Your task to perform on an android device: Do I have any events today? Image 0: 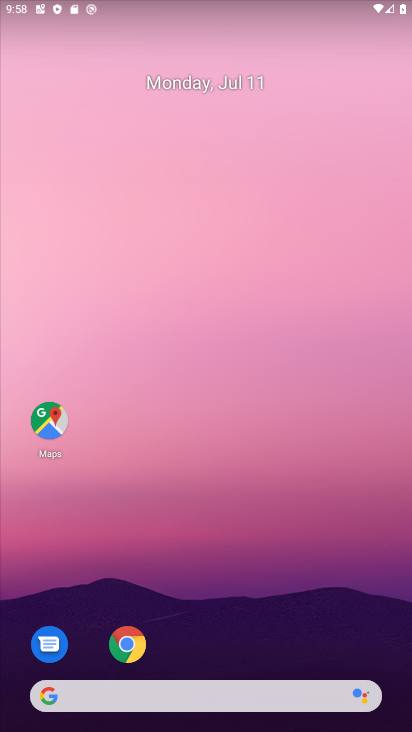
Step 0: press home button
Your task to perform on an android device: Do I have any events today? Image 1: 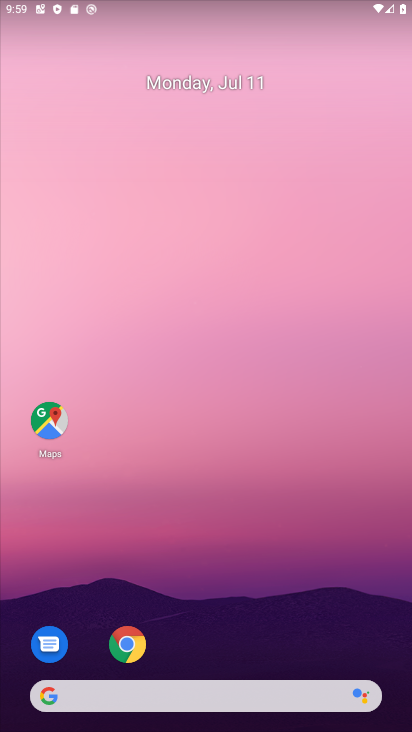
Step 1: drag from (210, 642) to (227, 133)
Your task to perform on an android device: Do I have any events today? Image 2: 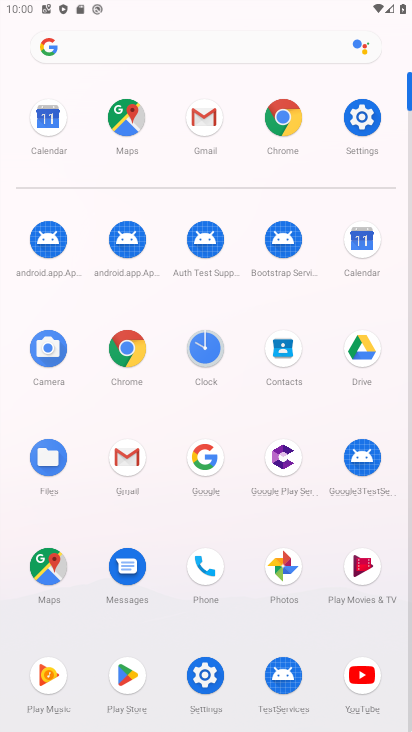
Step 2: click (358, 244)
Your task to perform on an android device: Do I have any events today? Image 3: 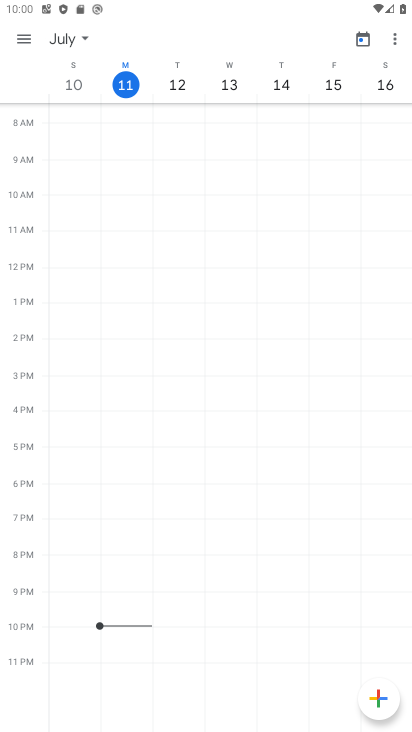
Step 3: click (24, 32)
Your task to perform on an android device: Do I have any events today? Image 4: 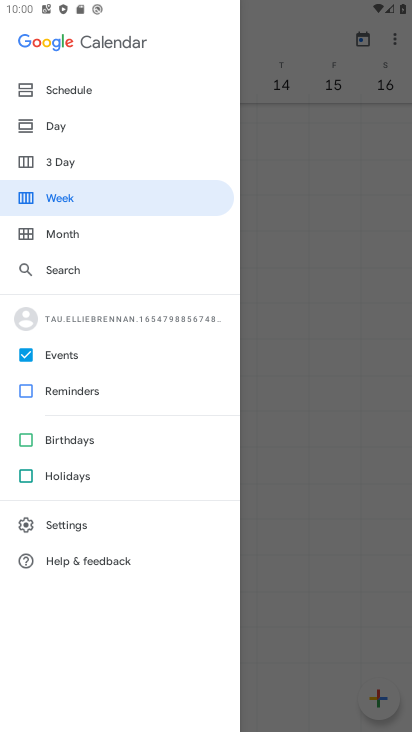
Step 4: click (62, 116)
Your task to perform on an android device: Do I have any events today? Image 5: 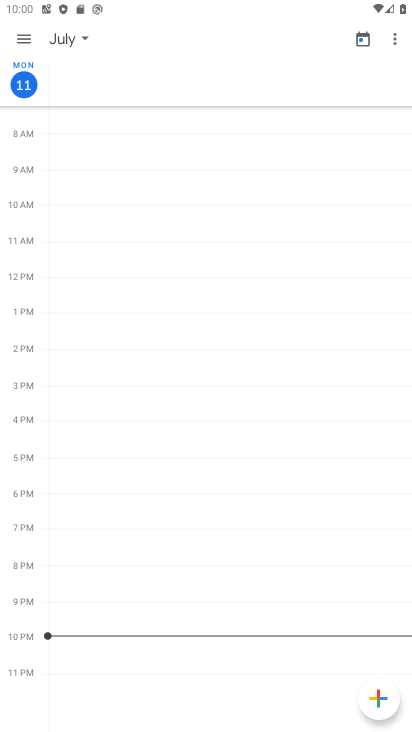
Step 5: click (89, 34)
Your task to perform on an android device: Do I have any events today? Image 6: 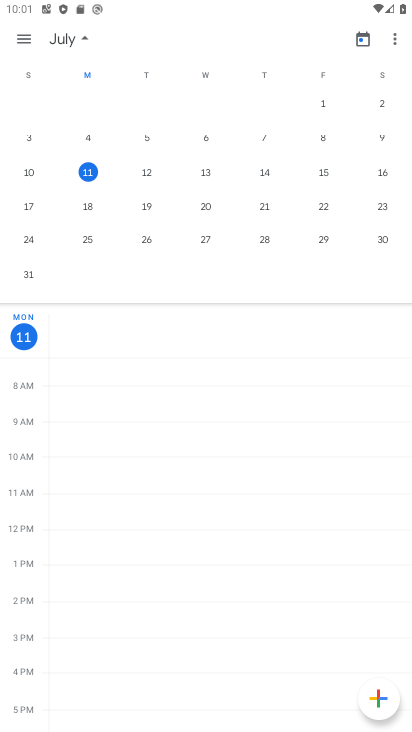
Step 6: click (83, 38)
Your task to perform on an android device: Do I have any events today? Image 7: 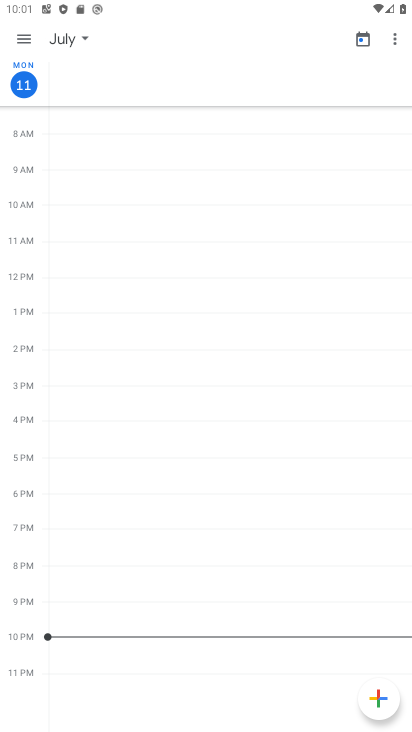
Step 7: task complete